Your task to perform on an android device: see sites visited before in the chrome app Image 0: 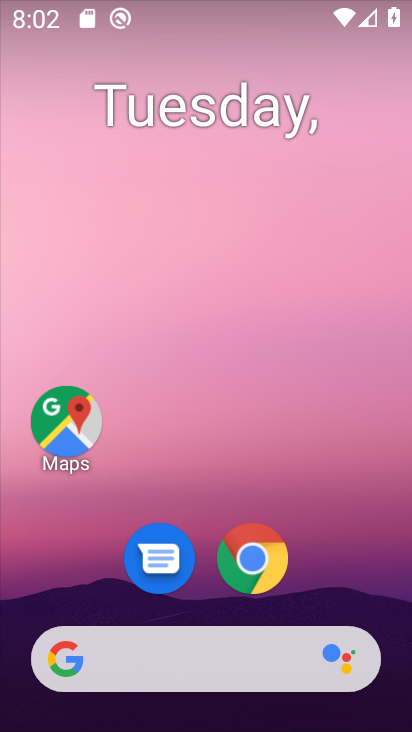
Step 0: click (261, 566)
Your task to perform on an android device: see sites visited before in the chrome app Image 1: 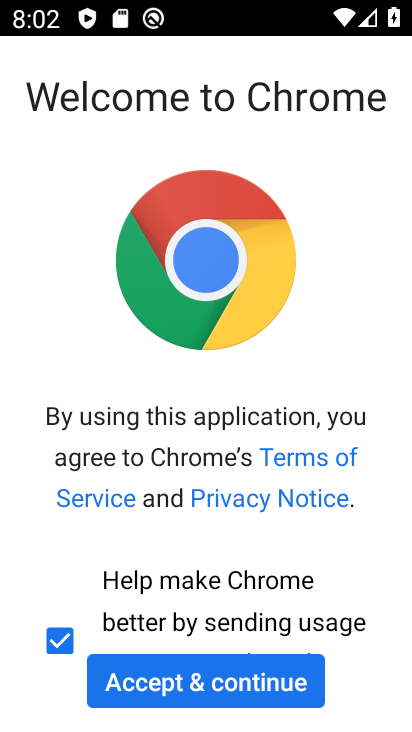
Step 1: click (189, 669)
Your task to perform on an android device: see sites visited before in the chrome app Image 2: 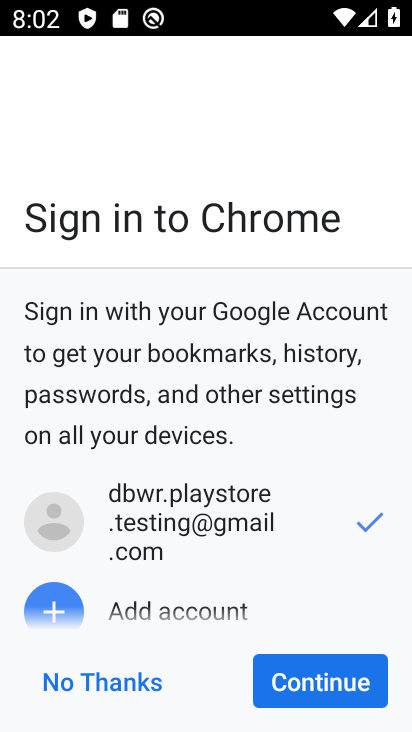
Step 2: click (312, 686)
Your task to perform on an android device: see sites visited before in the chrome app Image 3: 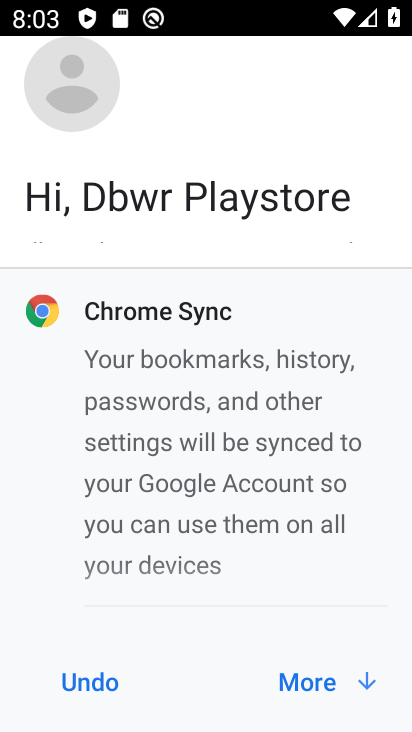
Step 3: click (298, 690)
Your task to perform on an android device: see sites visited before in the chrome app Image 4: 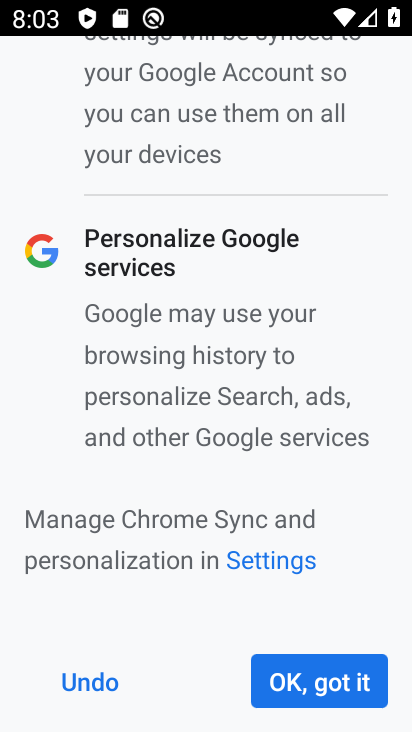
Step 4: click (293, 693)
Your task to perform on an android device: see sites visited before in the chrome app Image 5: 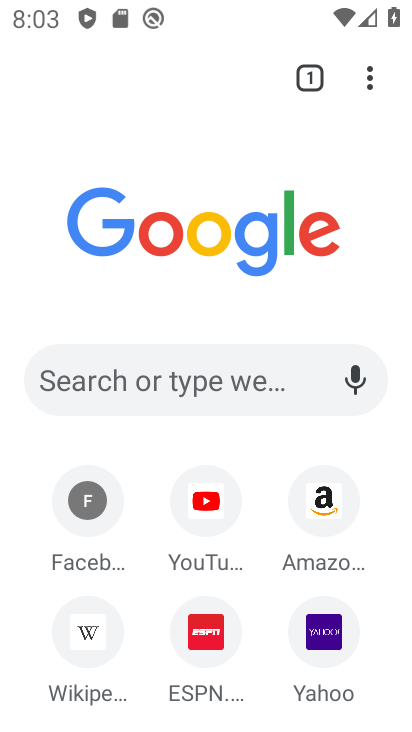
Step 5: task complete